Your task to perform on an android device: turn off location Image 0: 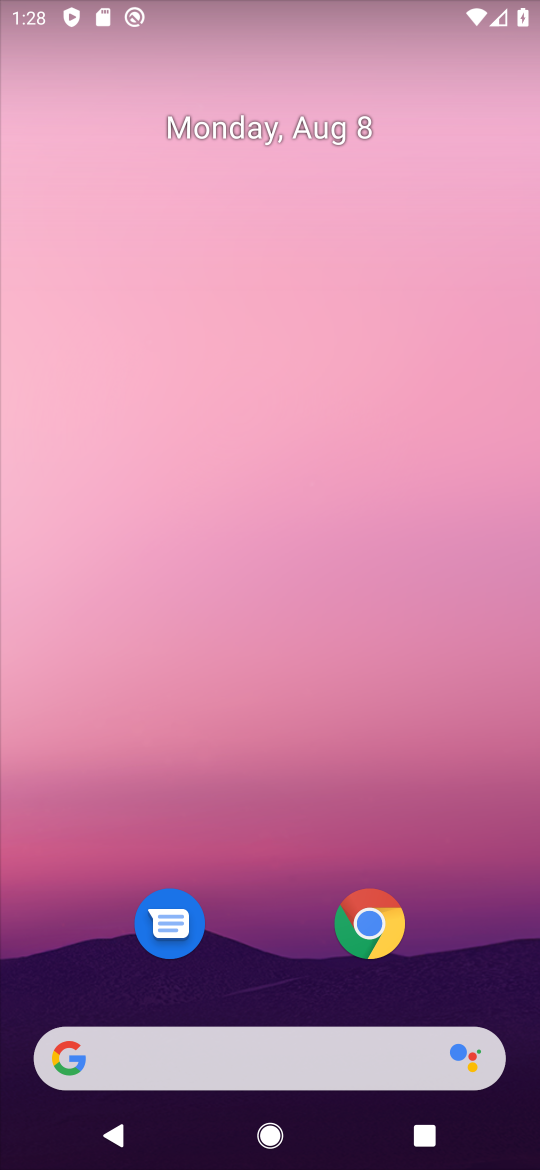
Step 0: drag from (339, 798) to (250, 240)
Your task to perform on an android device: turn off location Image 1: 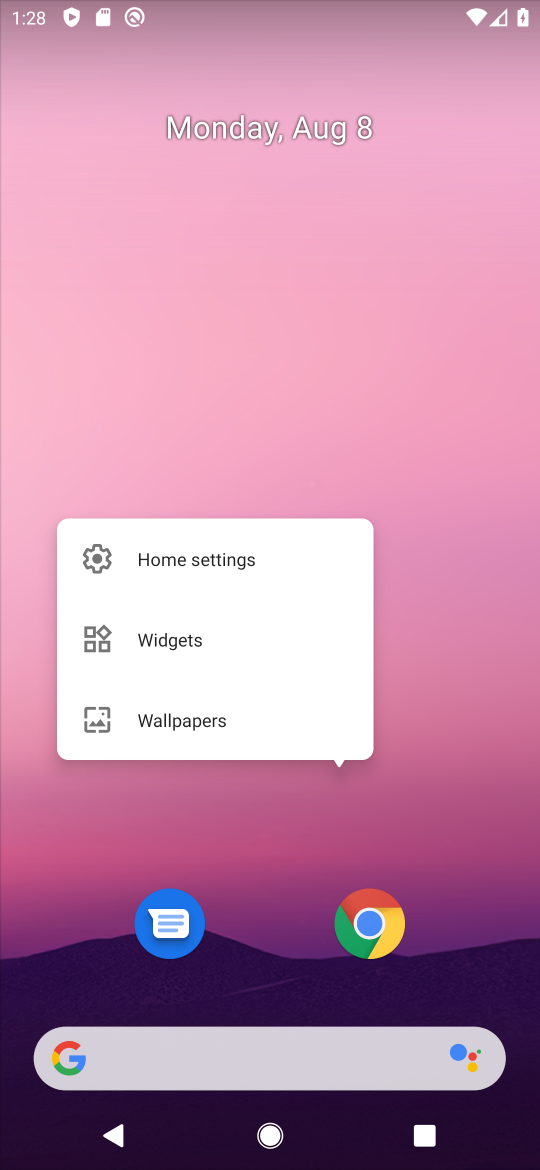
Step 1: drag from (479, 833) to (435, 220)
Your task to perform on an android device: turn off location Image 2: 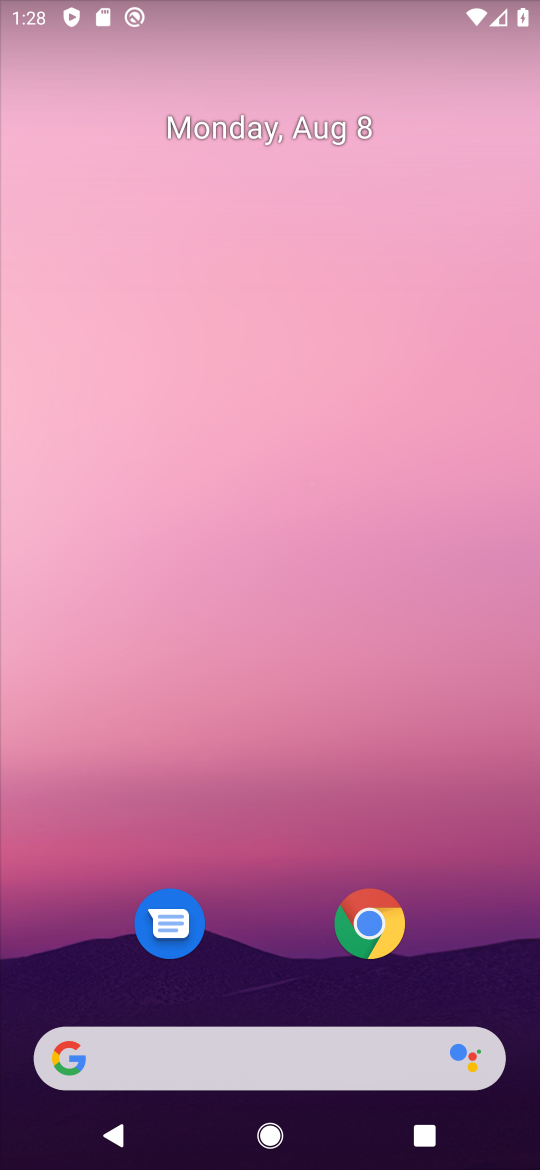
Step 2: click (296, 594)
Your task to perform on an android device: turn off location Image 3: 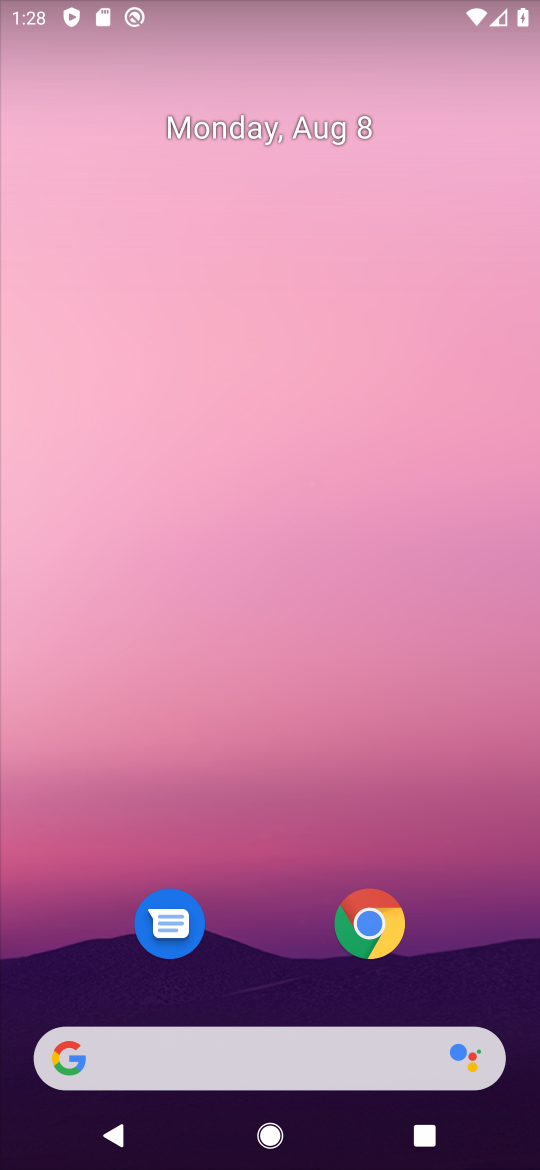
Step 3: drag from (298, 718) to (307, 128)
Your task to perform on an android device: turn off location Image 4: 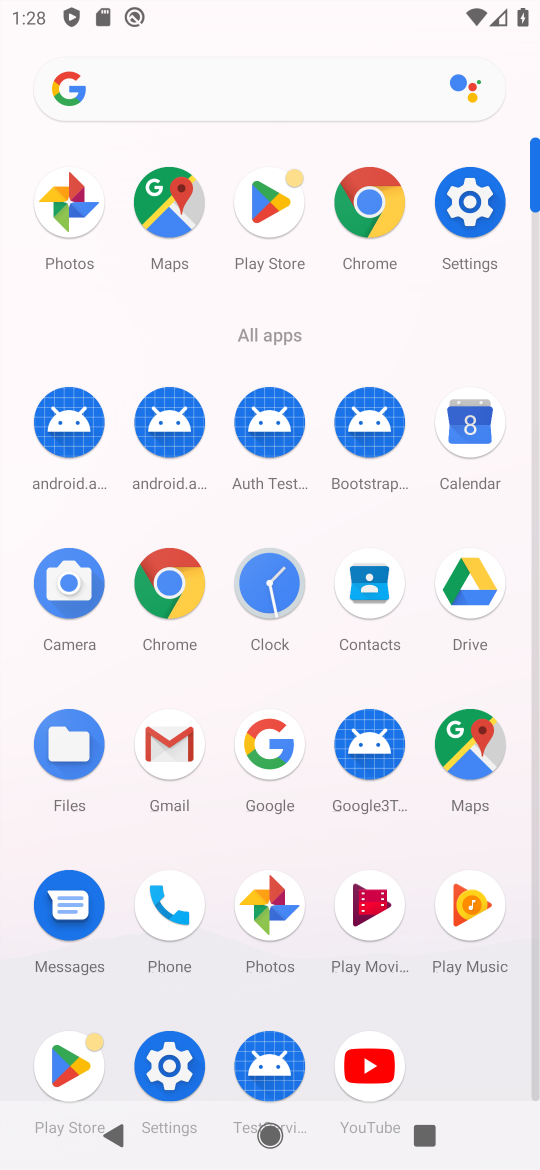
Step 4: click (458, 219)
Your task to perform on an android device: turn off location Image 5: 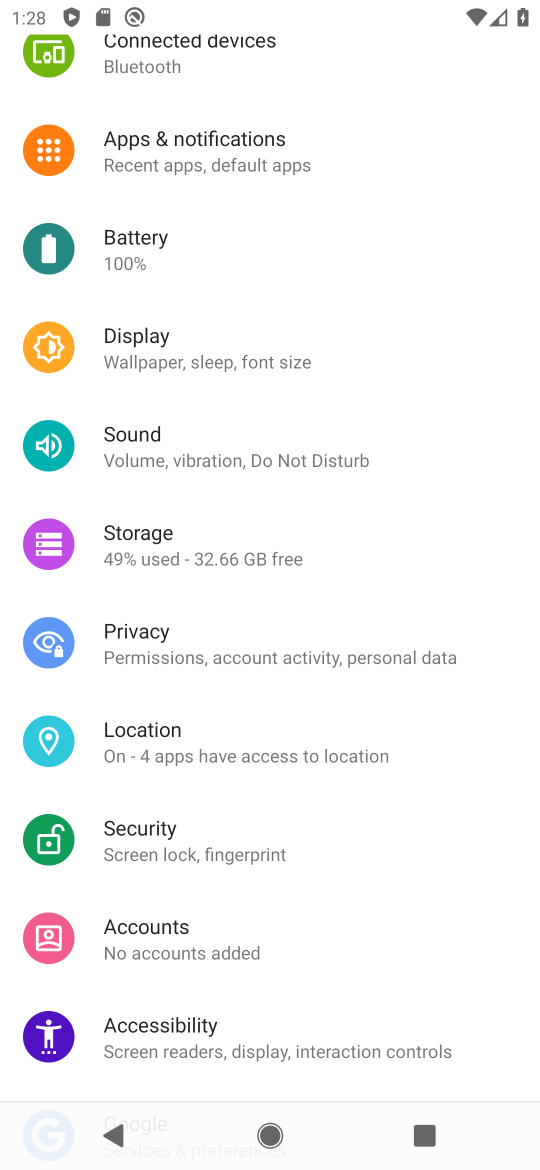
Step 5: click (183, 741)
Your task to perform on an android device: turn off location Image 6: 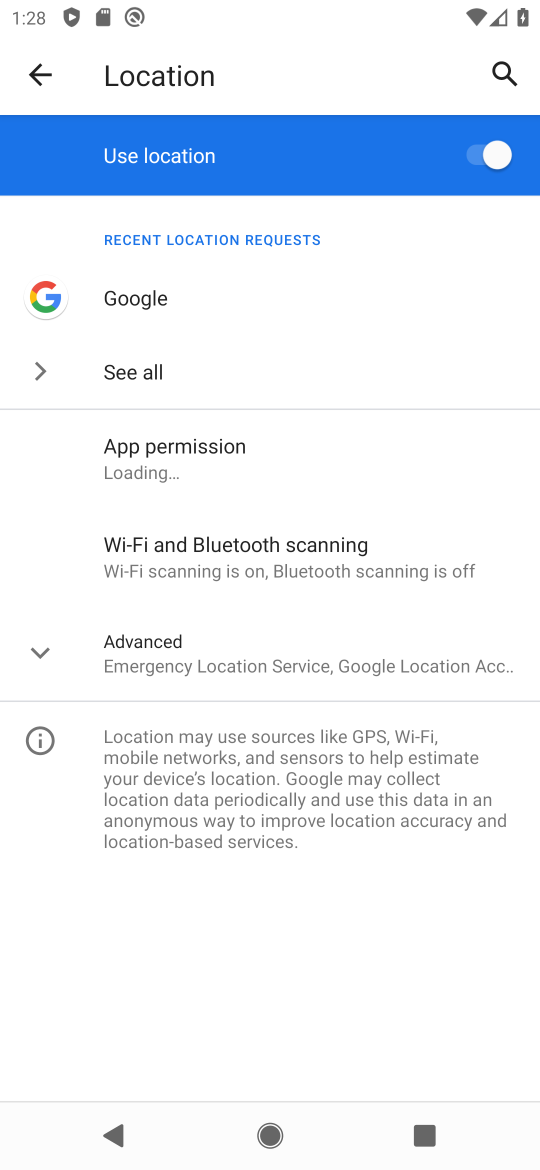
Step 6: task complete